Your task to perform on an android device: Open Yahoo.com Image 0: 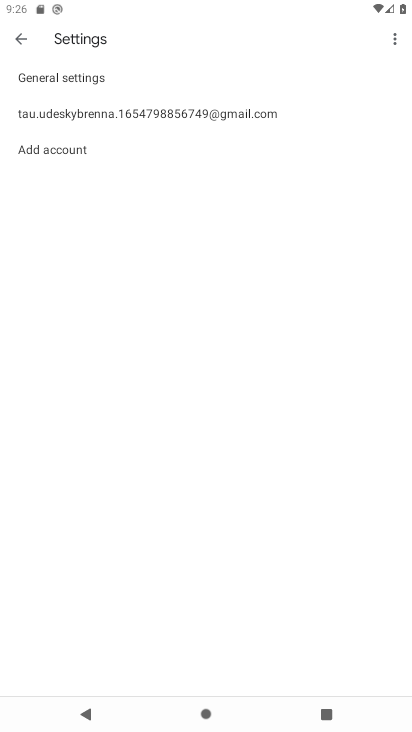
Step 0: press home button
Your task to perform on an android device: Open Yahoo.com Image 1: 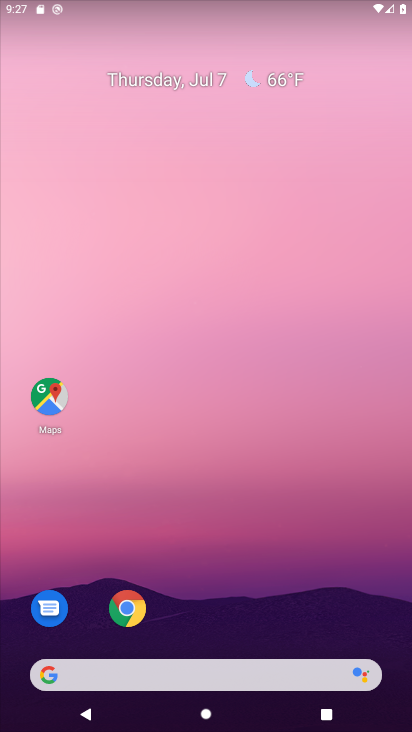
Step 1: drag from (263, 688) to (191, 251)
Your task to perform on an android device: Open Yahoo.com Image 2: 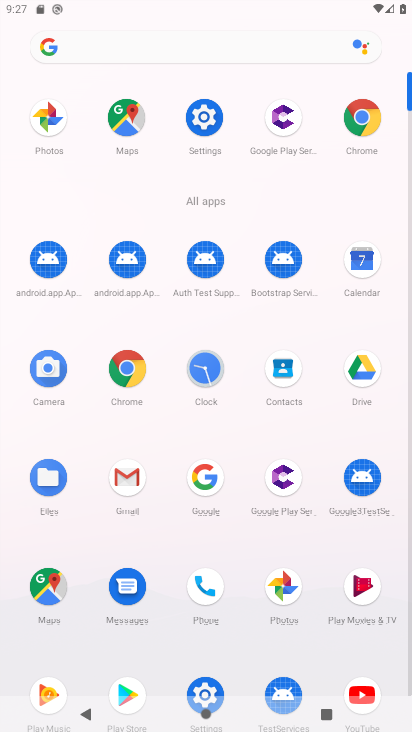
Step 2: click (352, 109)
Your task to perform on an android device: Open Yahoo.com Image 3: 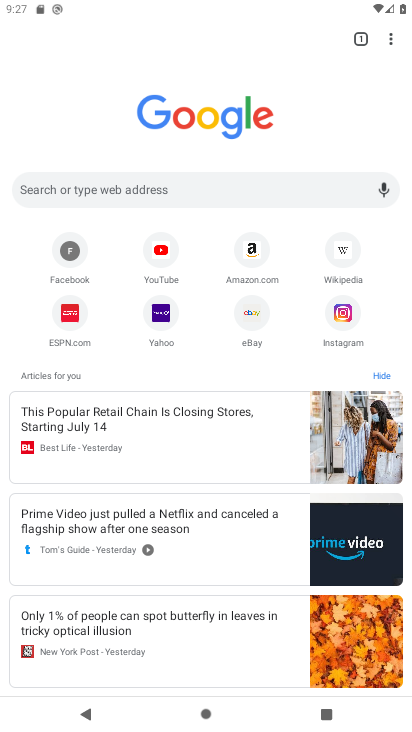
Step 3: click (166, 318)
Your task to perform on an android device: Open Yahoo.com Image 4: 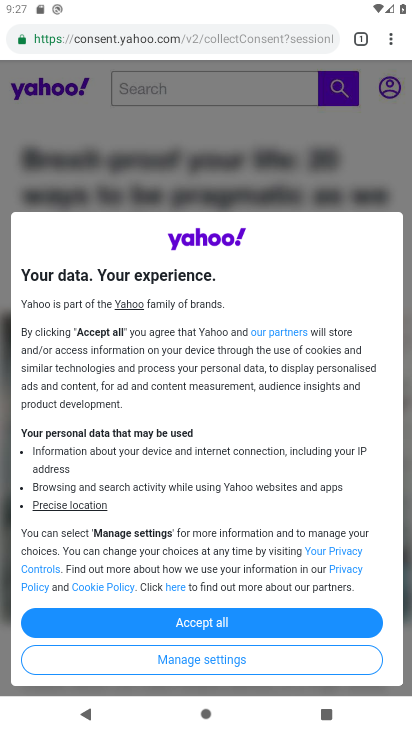
Step 4: click (233, 623)
Your task to perform on an android device: Open Yahoo.com Image 5: 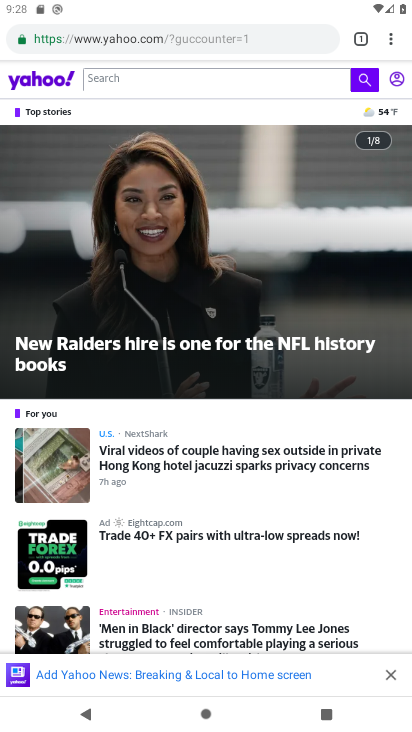
Step 5: task complete